Your task to perform on an android device: turn on showing notifications on the lock screen Image 0: 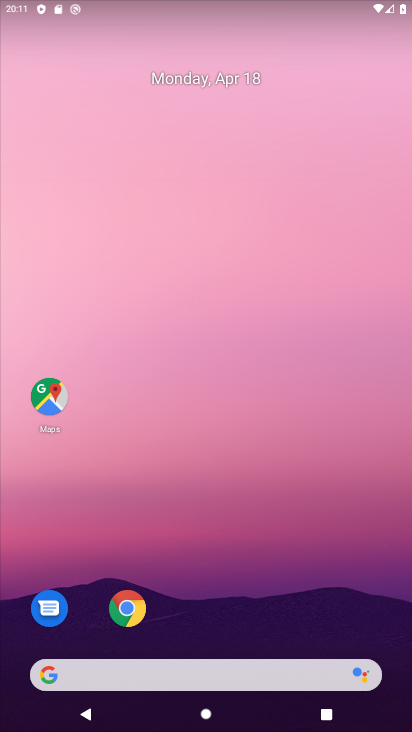
Step 0: drag from (202, 584) to (238, 145)
Your task to perform on an android device: turn on showing notifications on the lock screen Image 1: 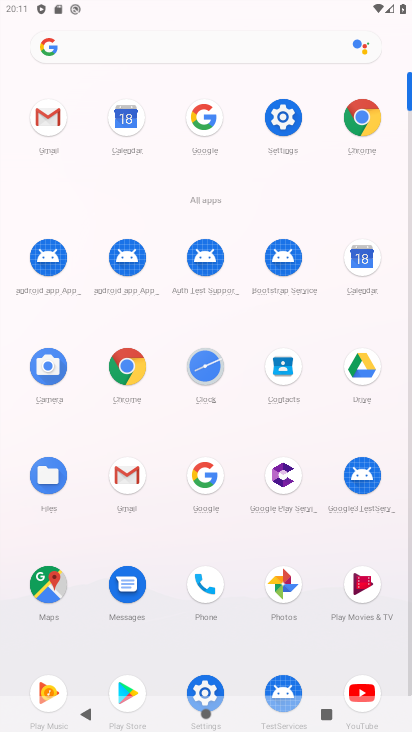
Step 1: click (284, 119)
Your task to perform on an android device: turn on showing notifications on the lock screen Image 2: 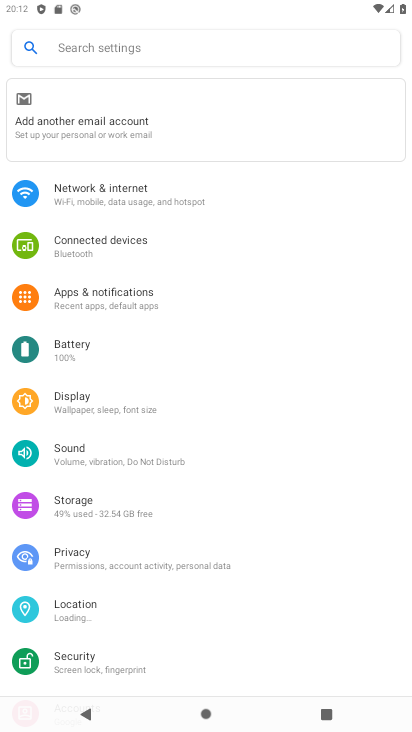
Step 2: drag from (198, 543) to (210, 346)
Your task to perform on an android device: turn on showing notifications on the lock screen Image 3: 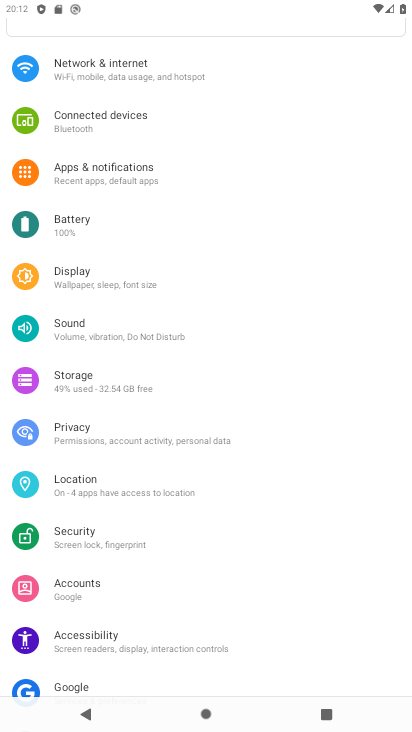
Step 3: click (116, 174)
Your task to perform on an android device: turn on showing notifications on the lock screen Image 4: 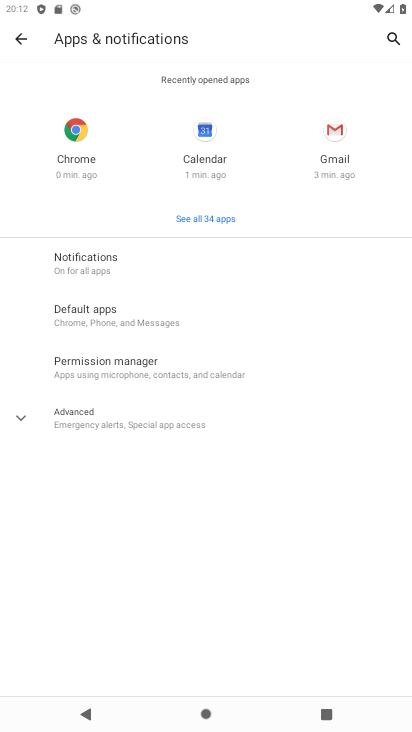
Step 4: click (76, 263)
Your task to perform on an android device: turn on showing notifications on the lock screen Image 5: 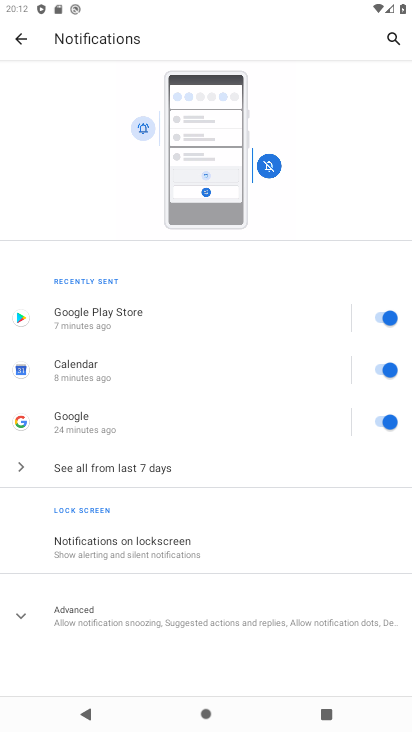
Step 5: click (173, 547)
Your task to perform on an android device: turn on showing notifications on the lock screen Image 6: 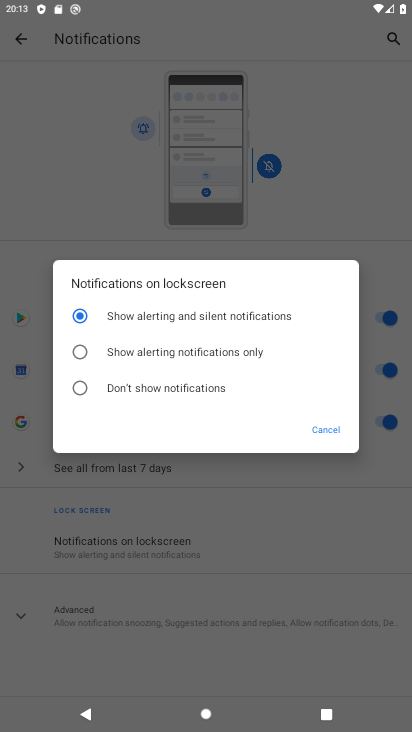
Step 6: task complete